Your task to perform on an android device: open a bookmark in the chrome app Image 0: 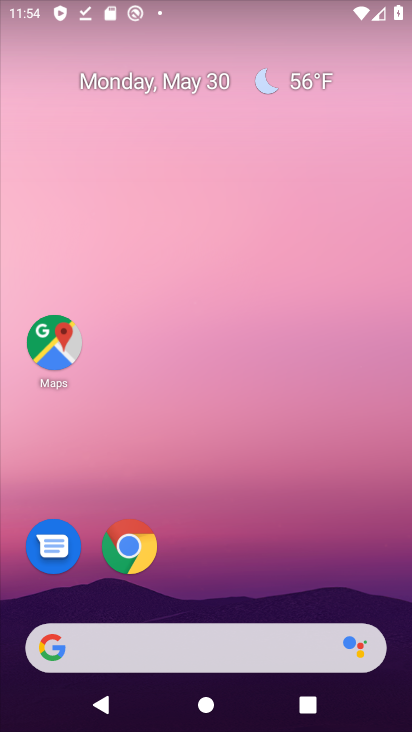
Step 0: drag from (245, 691) to (201, 117)
Your task to perform on an android device: open a bookmark in the chrome app Image 1: 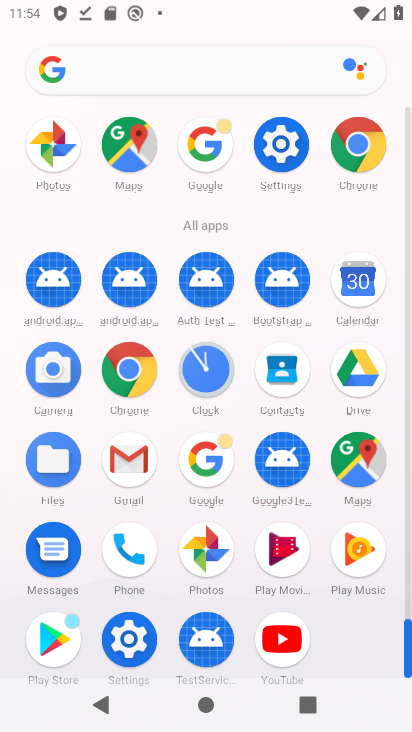
Step 1: click (347, 151)
Your task to perform on an android device: open a bookmark in the chrome app Image 2: 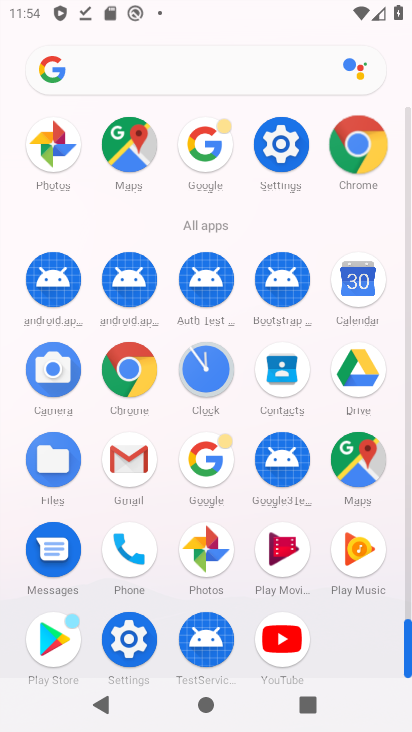
Step 2: click (347, 151)
Your task to perform on an android device: open a bookmark in the chrome app Image 3: 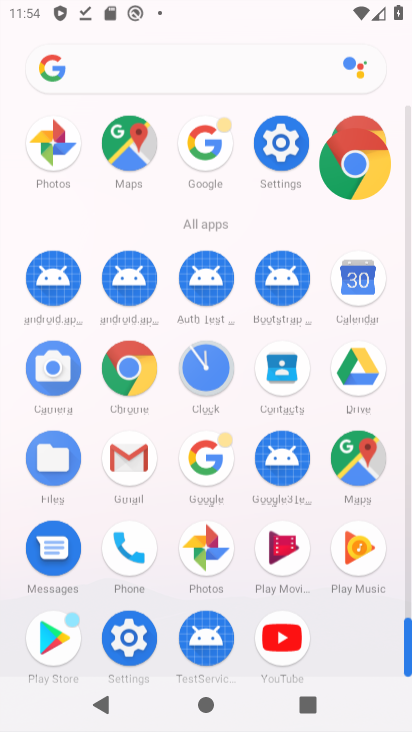
Step 3: click (347, 151)
Your task to perform on an android device: open a bookmark in the chrome app Image 4: 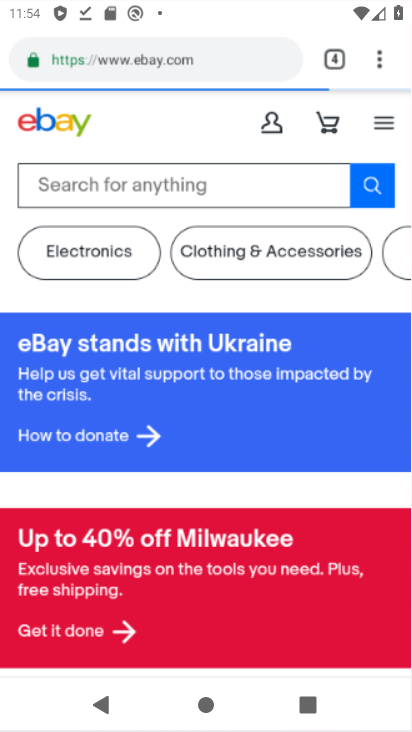
Step 4: click (348, 150)
Your task to perform on an android device: open a bookmark in the chrome app Image 5: 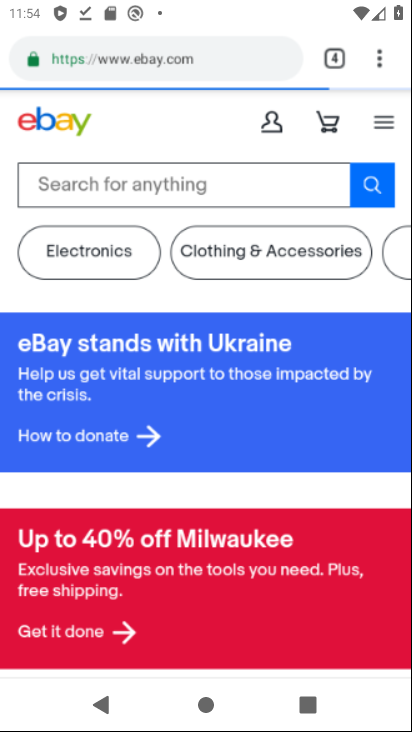
Step 5: click (348, 150)
Your task to perform on an android device: open a bookmark in the chrome app Image 6: 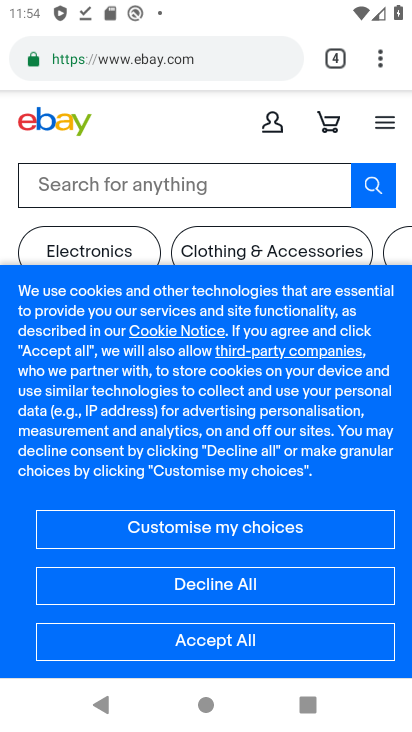
Step 6: drag from (381, 63) to (161, 289)
Your task to perform on an android device: open a bookmark in the chrome app Image 7: 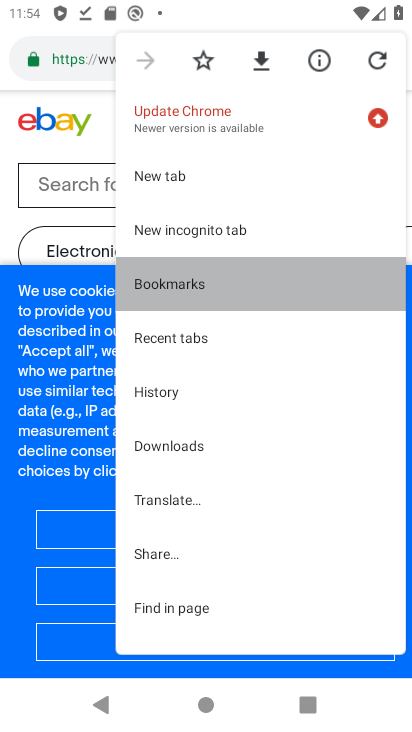
Step 7: click (168, 287)
Your task to perform on an android device: open a bookmark in the chrome app Image 8: 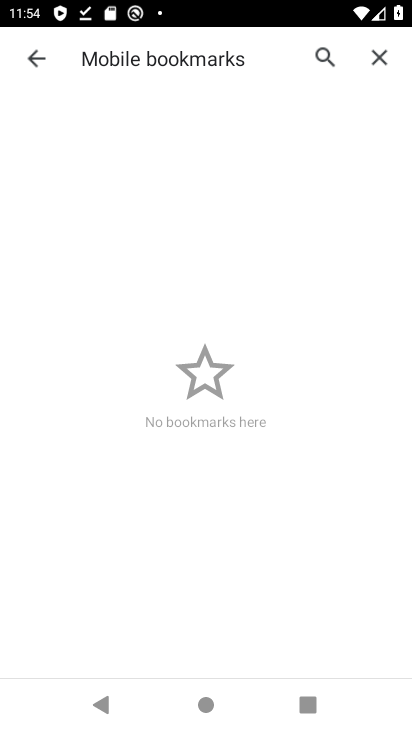
Step 8: task complete